Your task to perform on an android device: turn vacation reply on in the gmail app Image 0: 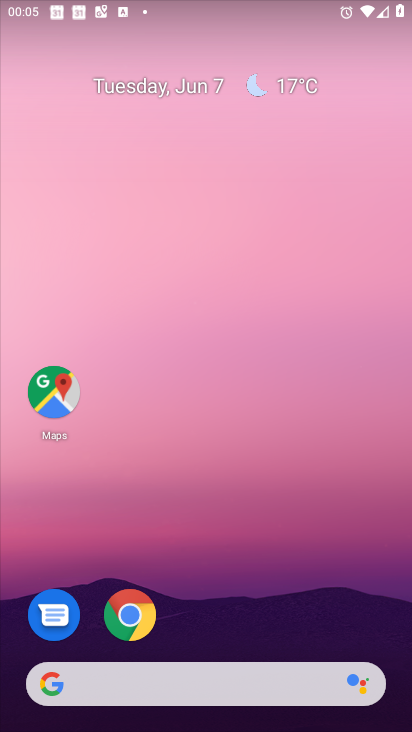
Step 0: drag from (398, 696) to (320, 465)
Your task to perform on an android device: turn vacation reply on in the gmail app Image 1: 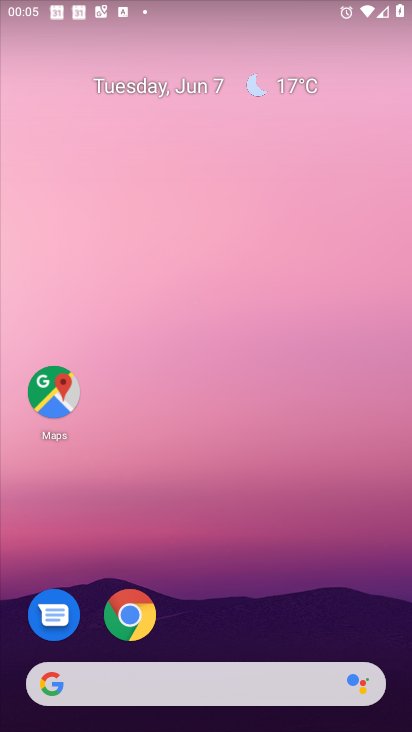
Step 1: drag from (399, 643) to (330, 169)
Your task to perform on an android device: turn vacation reply on in the gmail app Image 2: 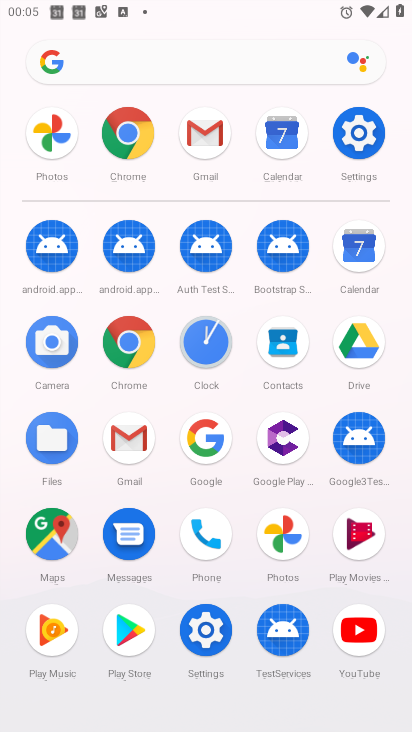
Step 2: click (143, 430)
Your task to perform on an android device: turn vacation reply on in the gmail app Image 3: 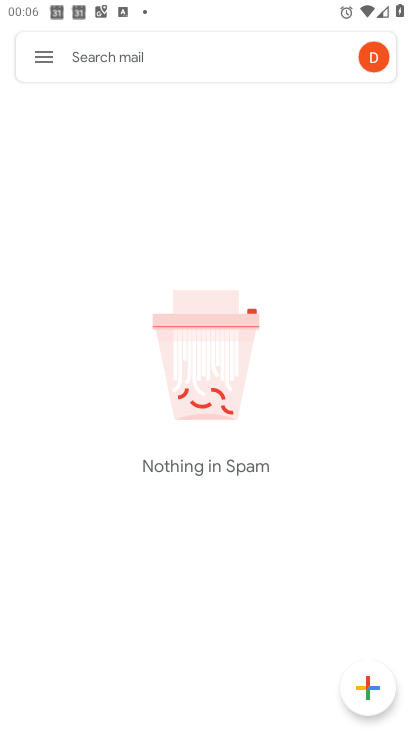
Step 3: click (51, 51)
Your task to perform on an android device: turn vacation reply on in the gmail app Image 4: 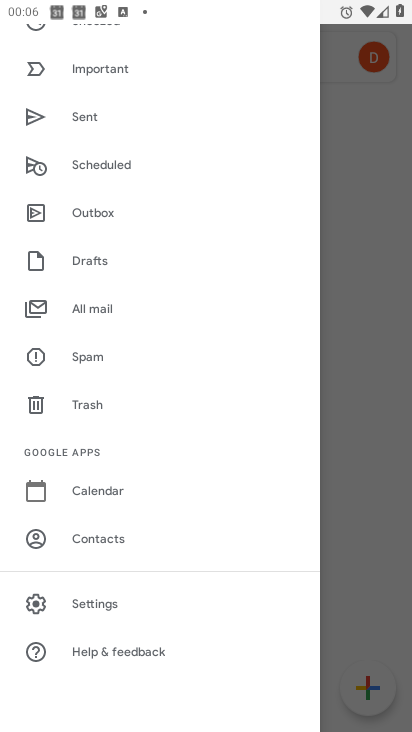
Step 4: click (94, 597)
Your task to perform on an android device: turn vacation reply on in the gmail app Image 5: 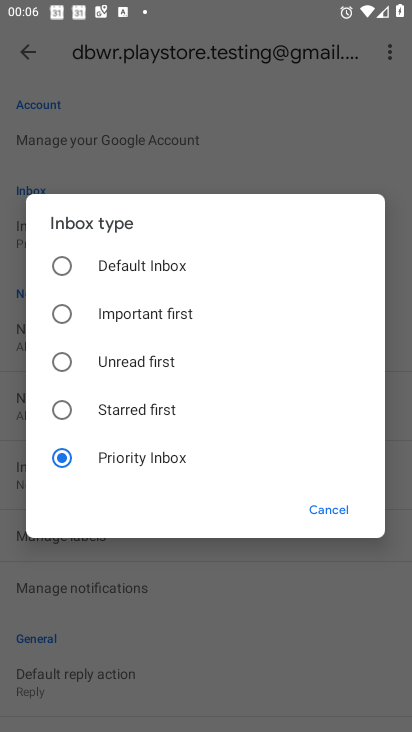
Step 5: click (311, 515)
Your task to perform on an android device: turn vacation reply on in the gmail app Image 6: 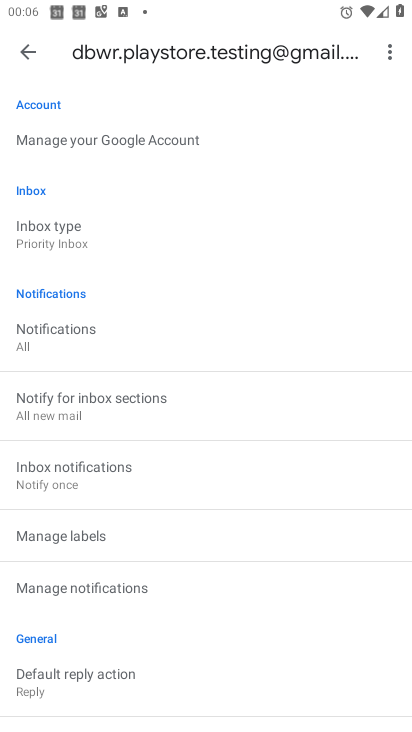
Step 6: drag from (263, 647) to (285, 204)
Your task to perform on an android device: turn vacation reply on in the gmail app Image 7: 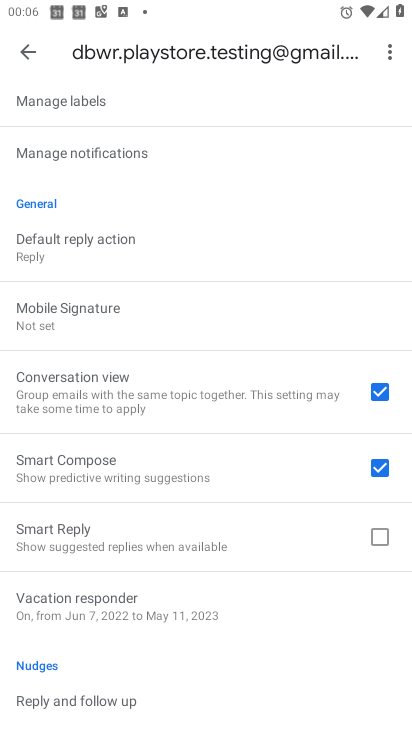
Step 7: click (180, 602)
Your task to perform on an android device: turn vacation reply on in the gmail app Image 8: 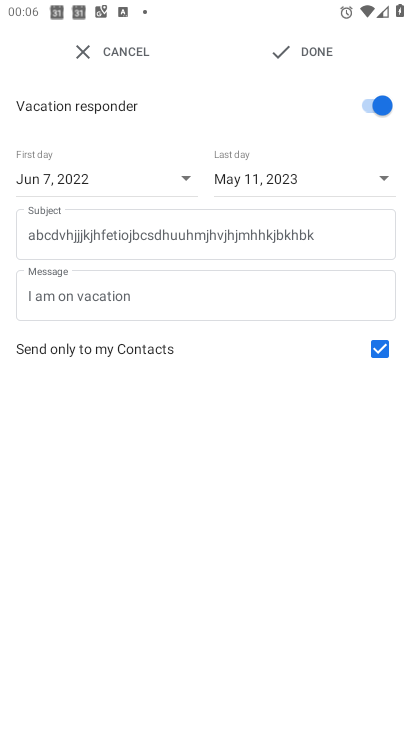
Step 8: task complete